Your task to perform on an android device: stop showing notifications on the lock screen Image 0: 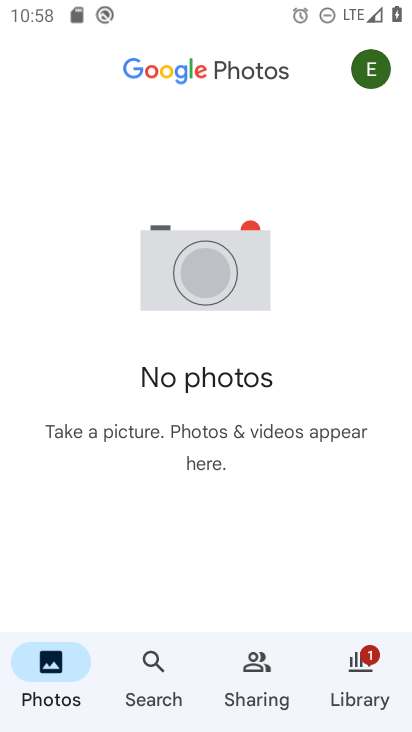
Step 0: press home button
Your task to perform on an android device: stop showing notifications on the lock screen Image 1: 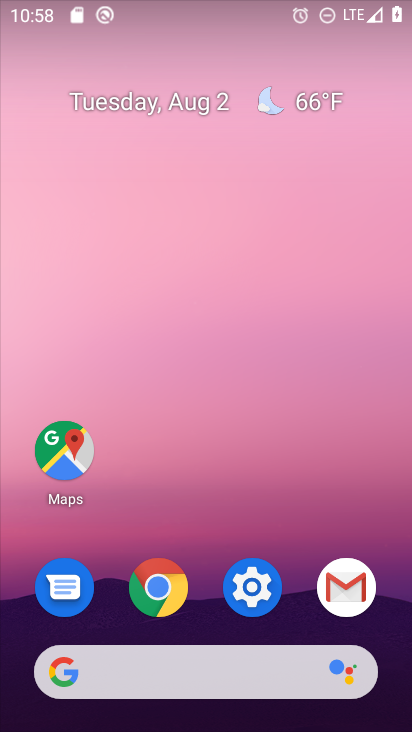
Step 1: click (248, 599)
Your task to perform on an android device: stop showing notifications on the lock screen Image 2: 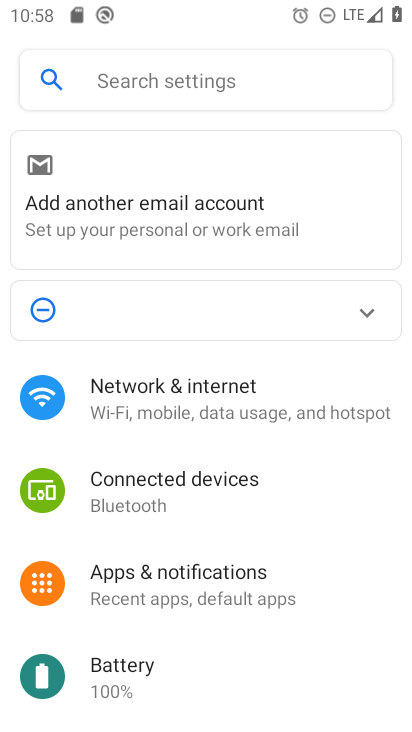
Step 2: click (126, 95)
Your task to perform on an android device: stop showing notifications on the lock screen Image 3: 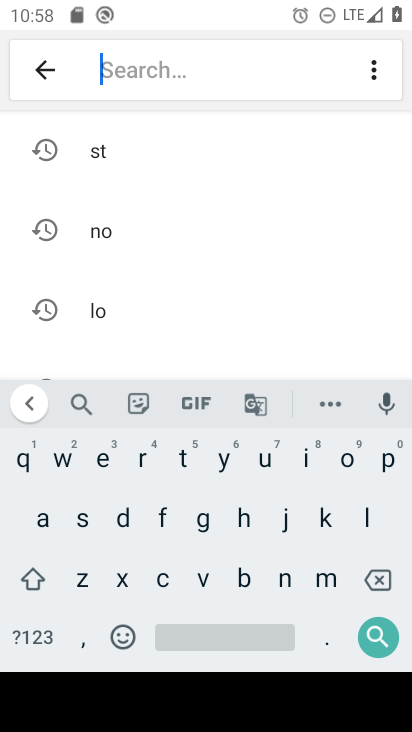
Step 3: click (128, 242)
Your task to perform on an android device: stop showing notifications on the lock screen Image 4: 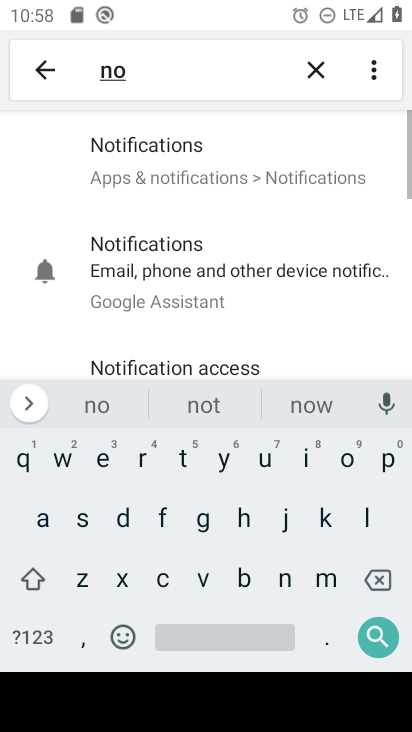
Step 4: click (148, 183)
Your task to perform on an android device: stop showing notifications on the lock screen Image 5: 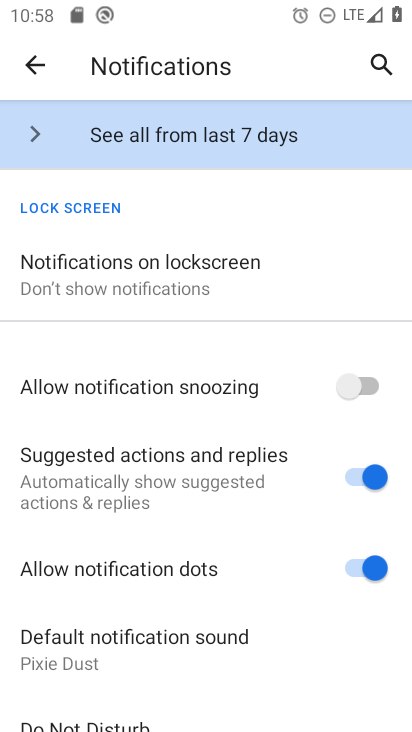
Step 5: click (103, 261)
Your task to perform on an android device: stop showing notifications on the lock screen Image 6: 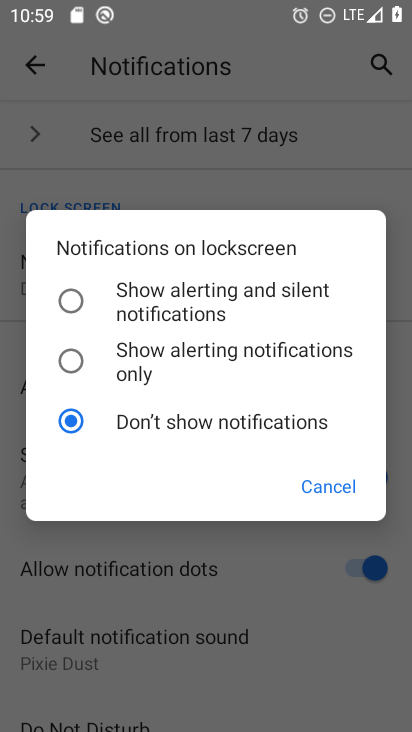
Step 6: task complete